Your task to perform on an android device: Go to Yahoo.com Image 0: 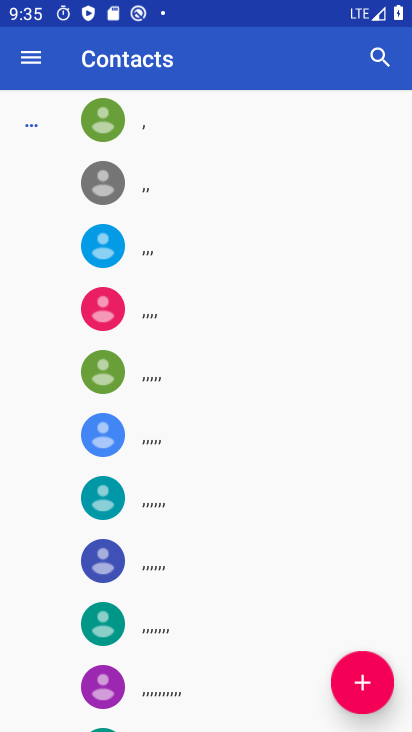
Step 0: press home button
Your task to perform on an android device: Go to Yahoo.com Image 1: 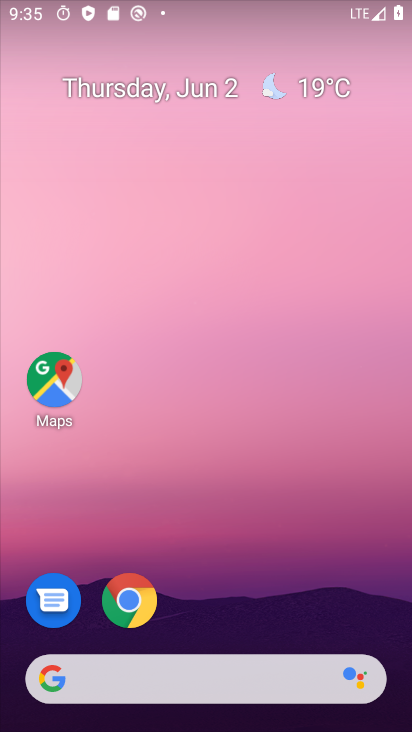
Step 1: drag from (207, 607) to (200, 190)
Your task to perform on an android device: Go to Yahoo.com Image 2: 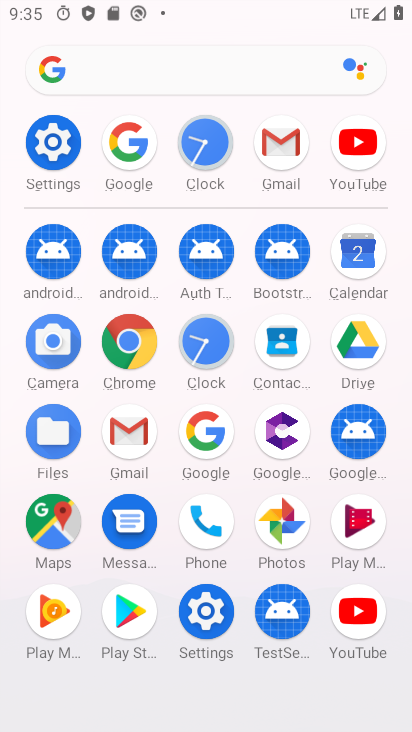
Step 2: click (130, 361)
Your task to perform on an android device: Go to Yahoo.com Image 3: 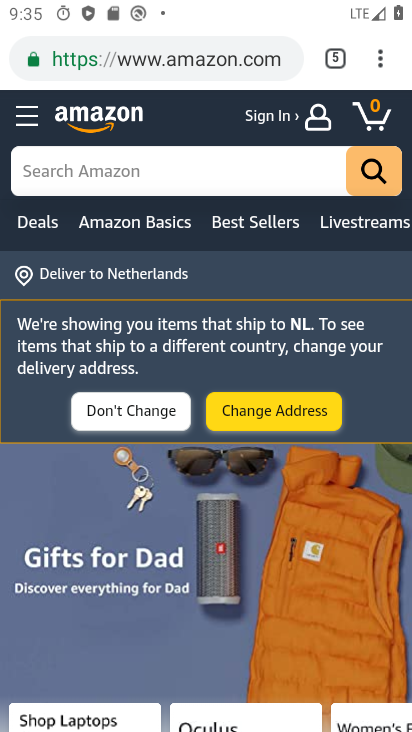
Step 3: click (337, 57)
Your task to perform on an android device: Go to Yahoo.com Image 4: 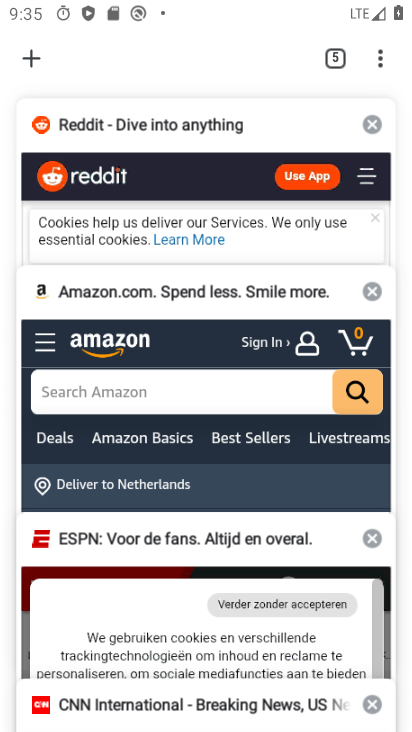
Step 4: click (34, 56)
Your task to perform on an android device: Go to Yahoo.com Image 5: 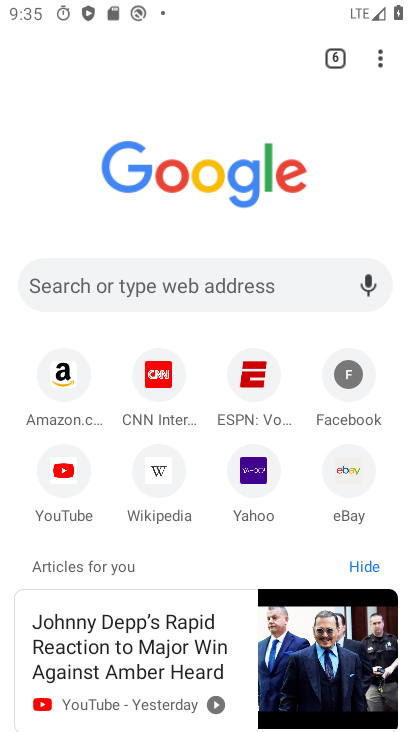
Step 5: click (257, 469)
Your task to perform on an android device: Go to Yahoo.com Image 6: 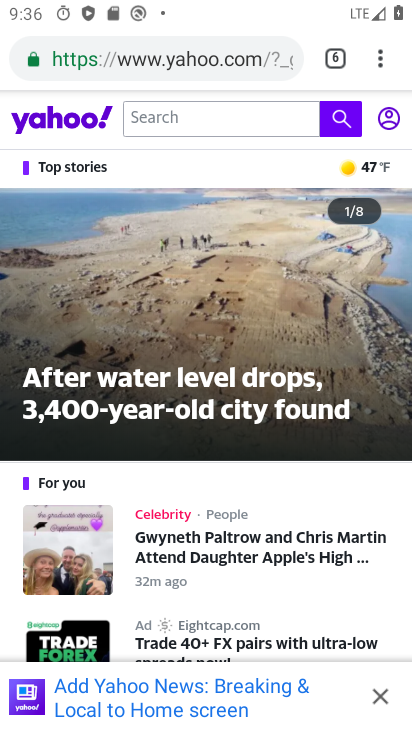
Step 6: task complete